Your task to perform on an android device: add a label to a message in the gmail app Image 0: 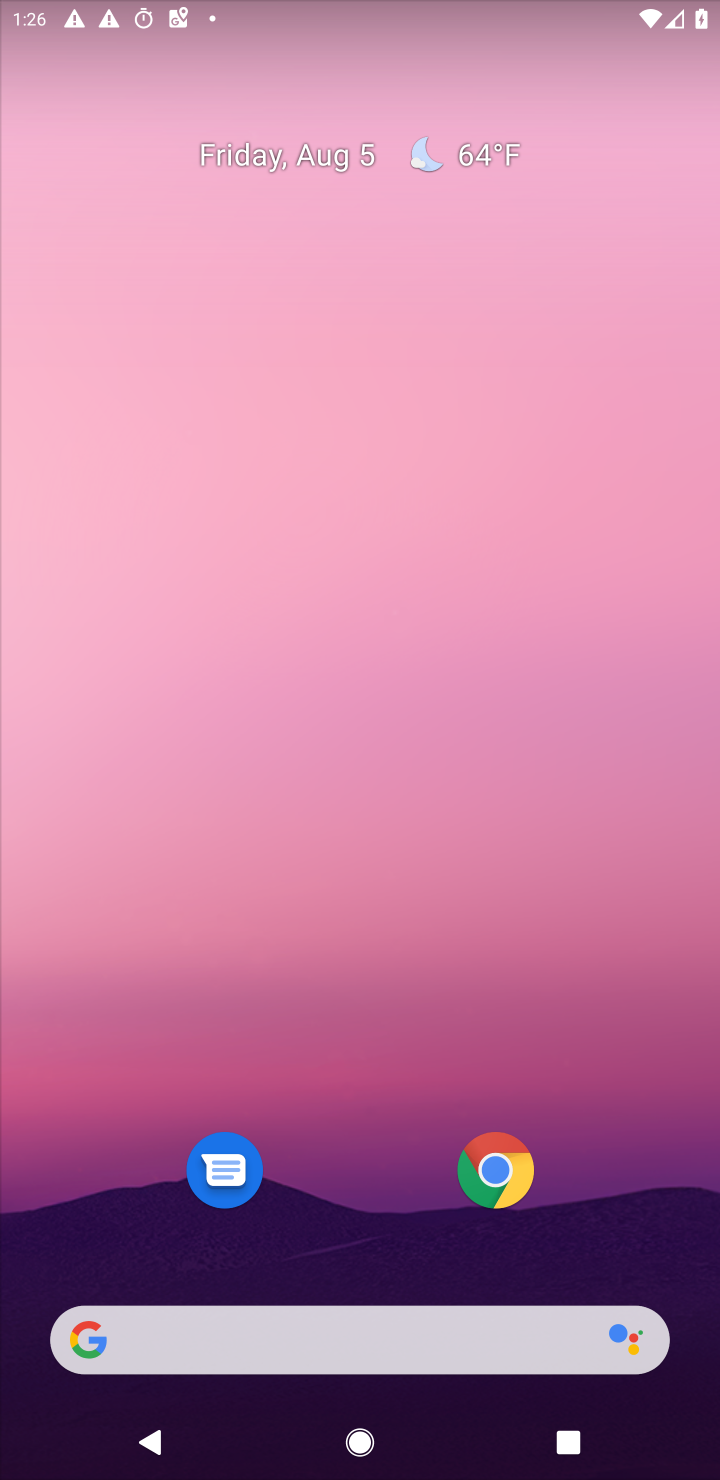
Step 0: drag from (358, 1168) to (404, 215)
Your task to perform on an android device: add a label to a message in the gmail app Image 1: 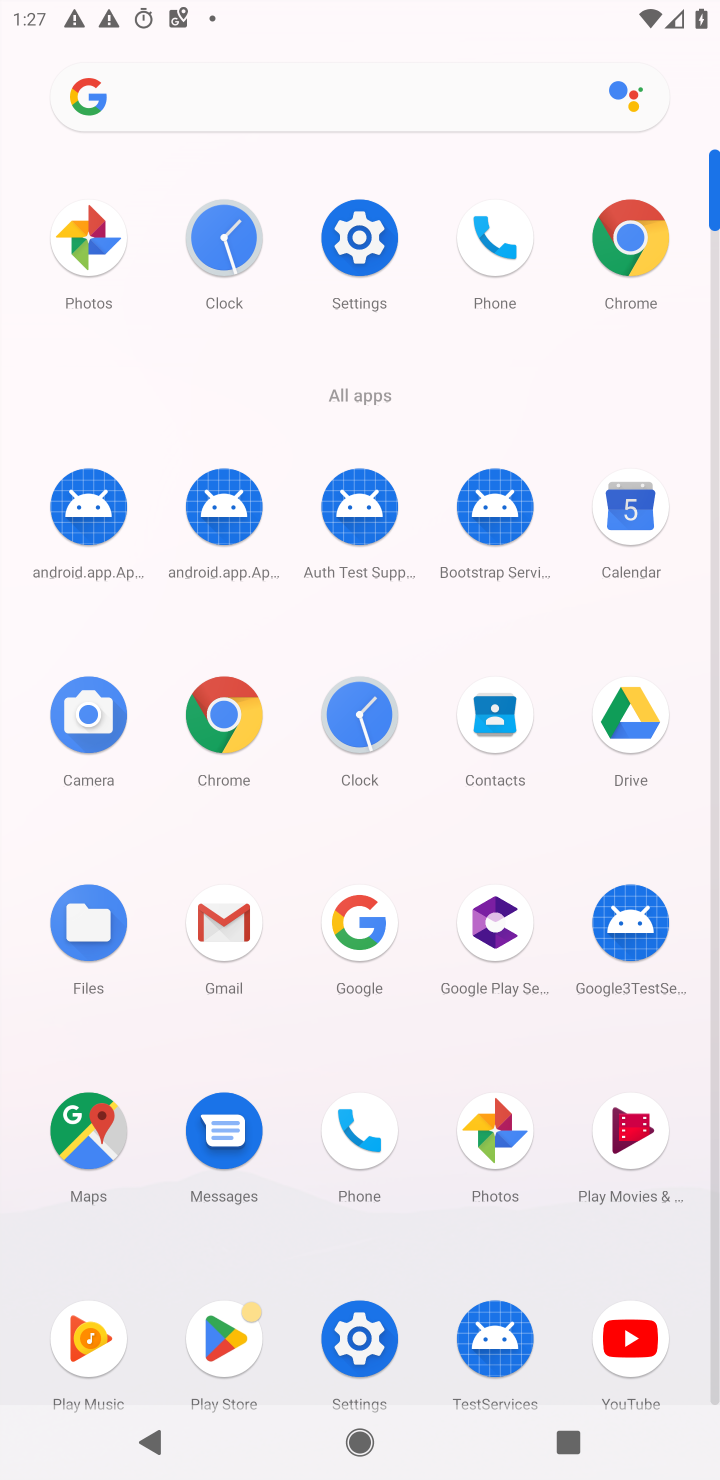
Step 1: click (233, 944)
Your task to perform on an android device: add a label to a message in the gmail app Image 2: 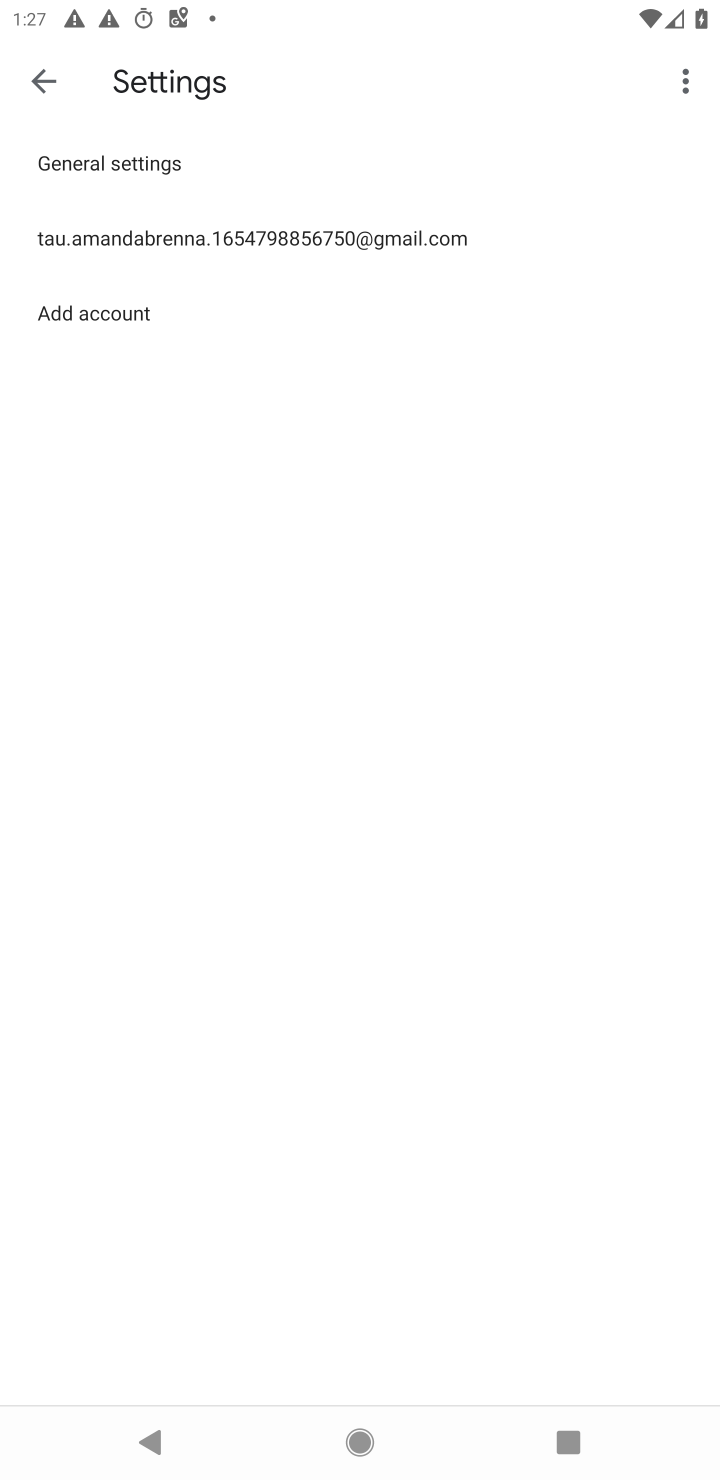
Step 2: press back button
Your task to perform on an android device: add a label to a message in the gmail app Image 3: 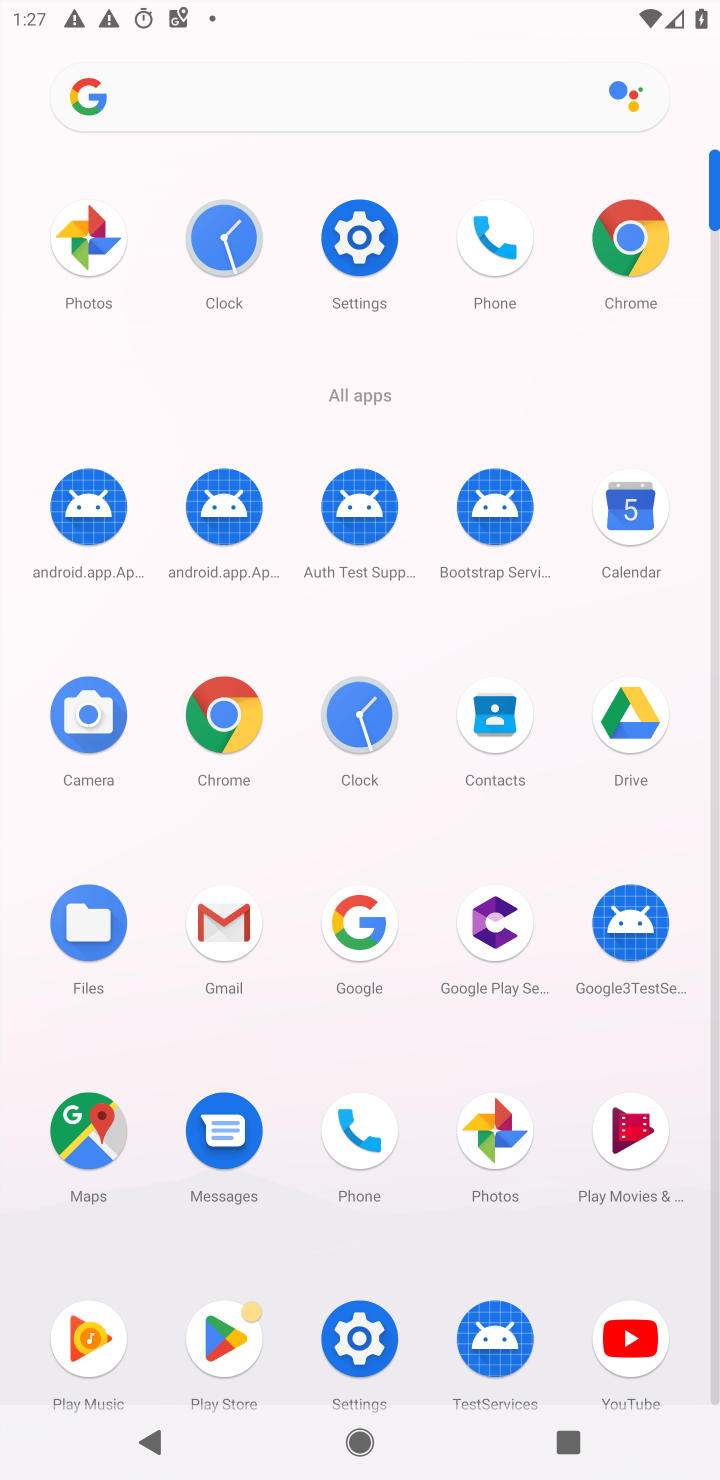
Step 3: click (235, 943)
Your task to perform on an android device: add a label to a message in the gmail app Image 4: 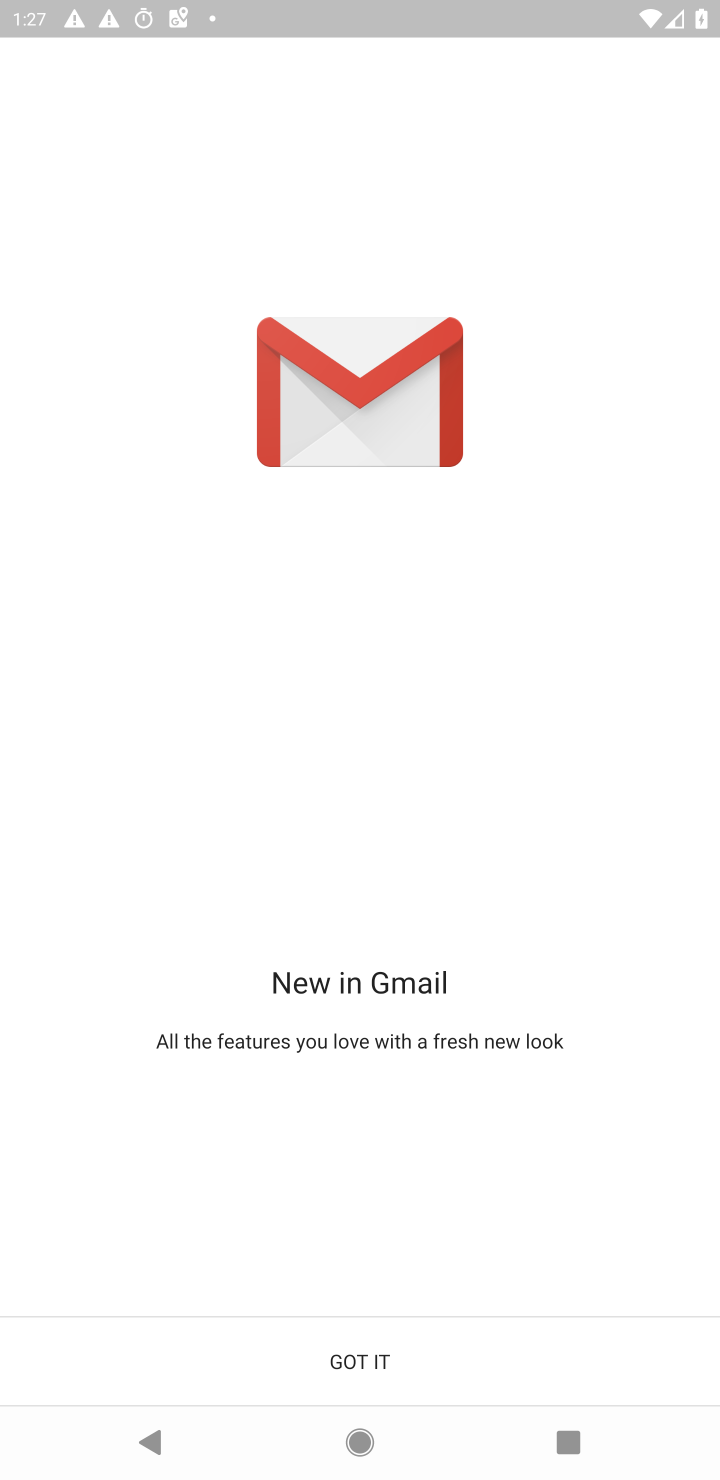
Step 4: click (398, 1349)
Your task to perform on an android device: add a label to a message in the gmail app Image 5: 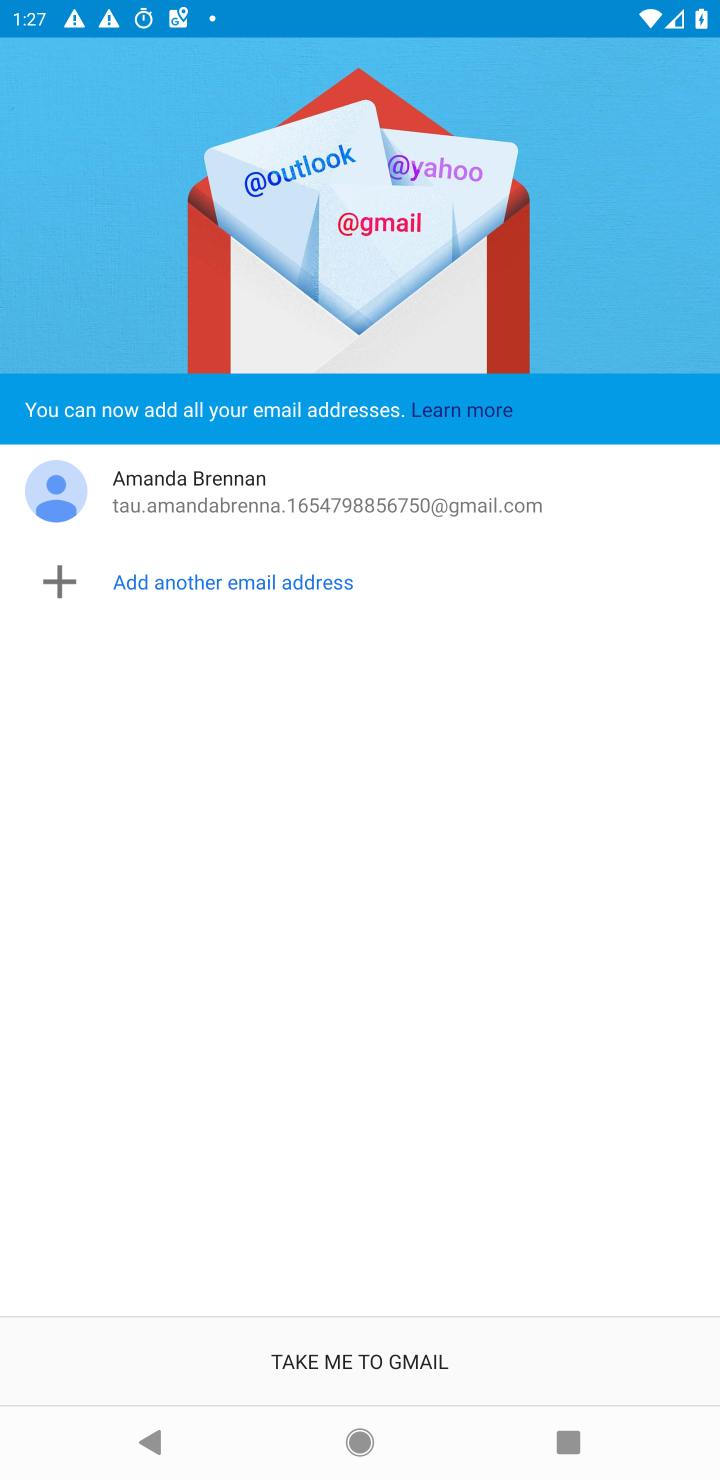
Step 5: click (398, 1349)
Your task to perform on an android device: add a label to a message in the gmail app Image 6: 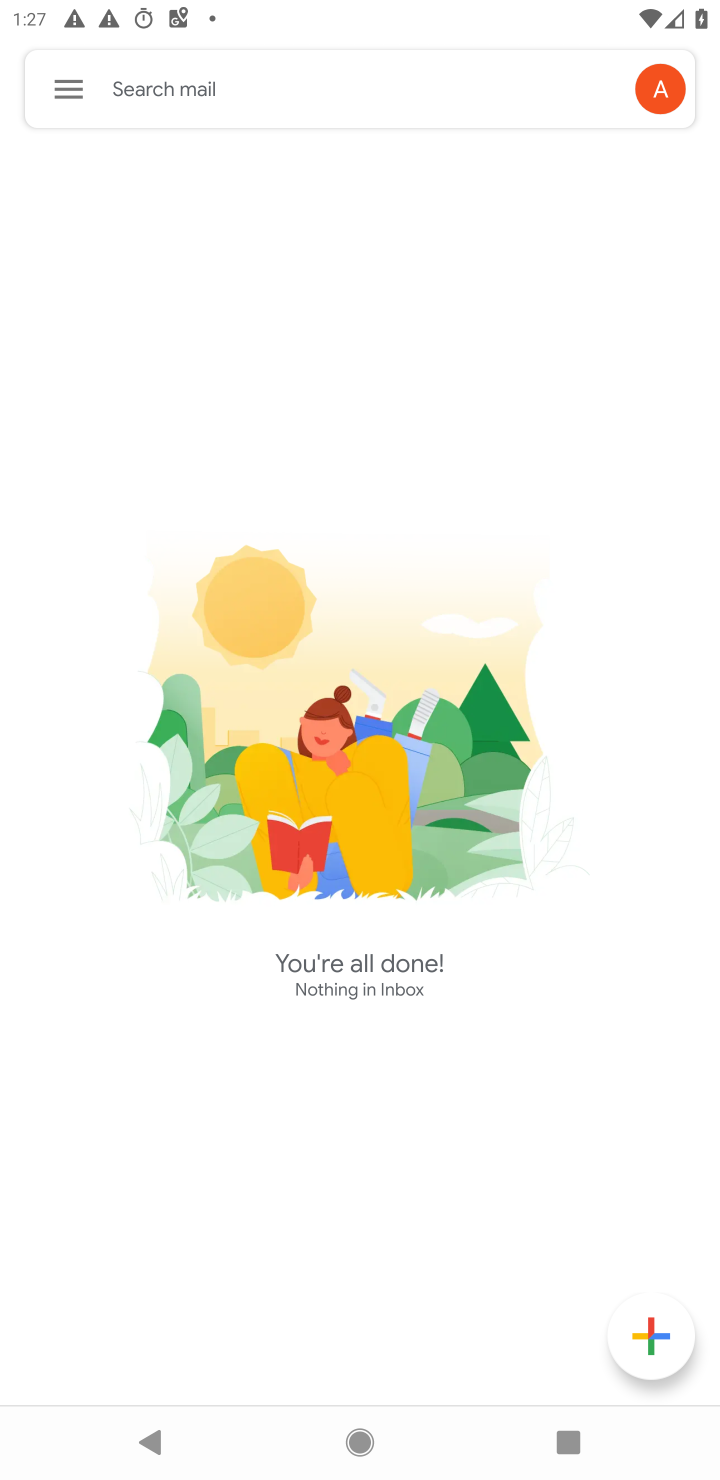
Step 6: click (94, 103)
Your task to perform on an android device: add a label to a message in the gmail app Image 7: 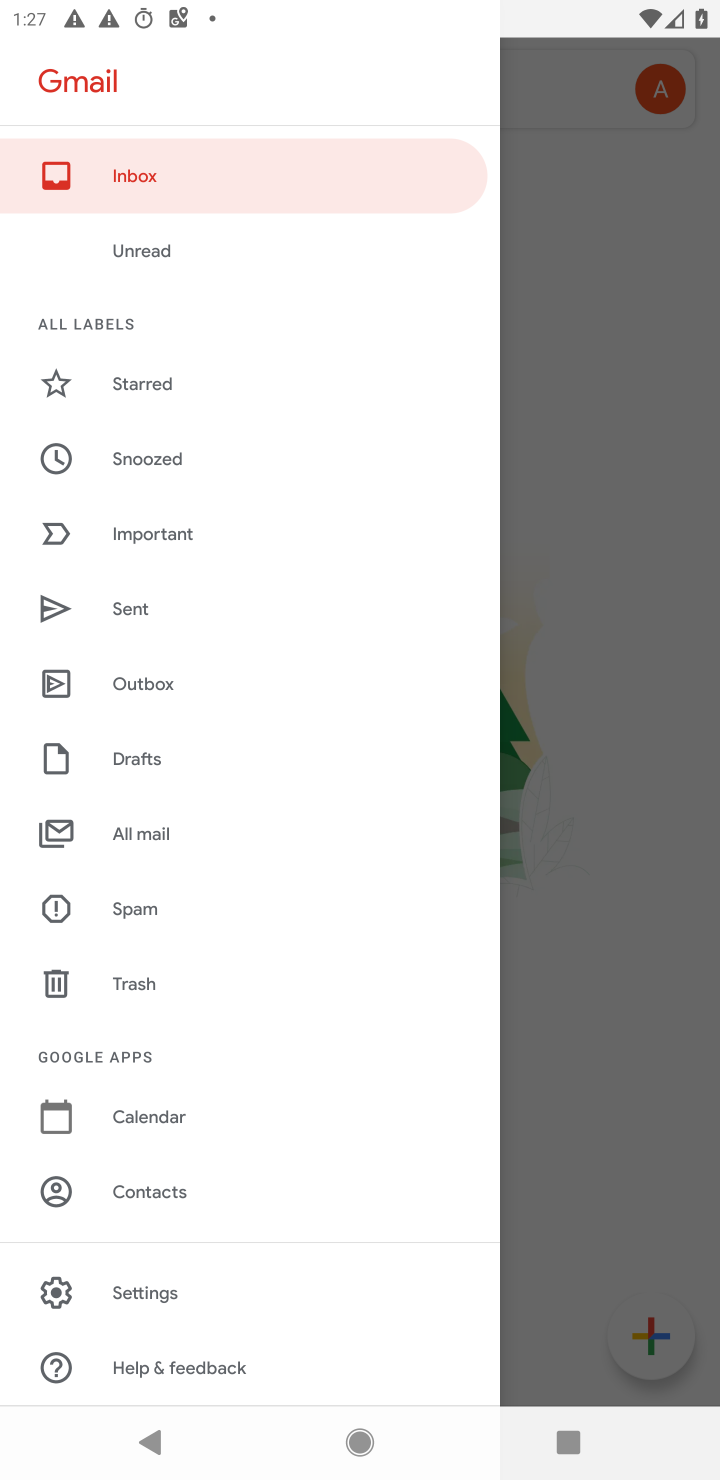
Step 7: click (162, 831)
Your task to perform on an android device: add a label to a message in the gmail app Image 8: 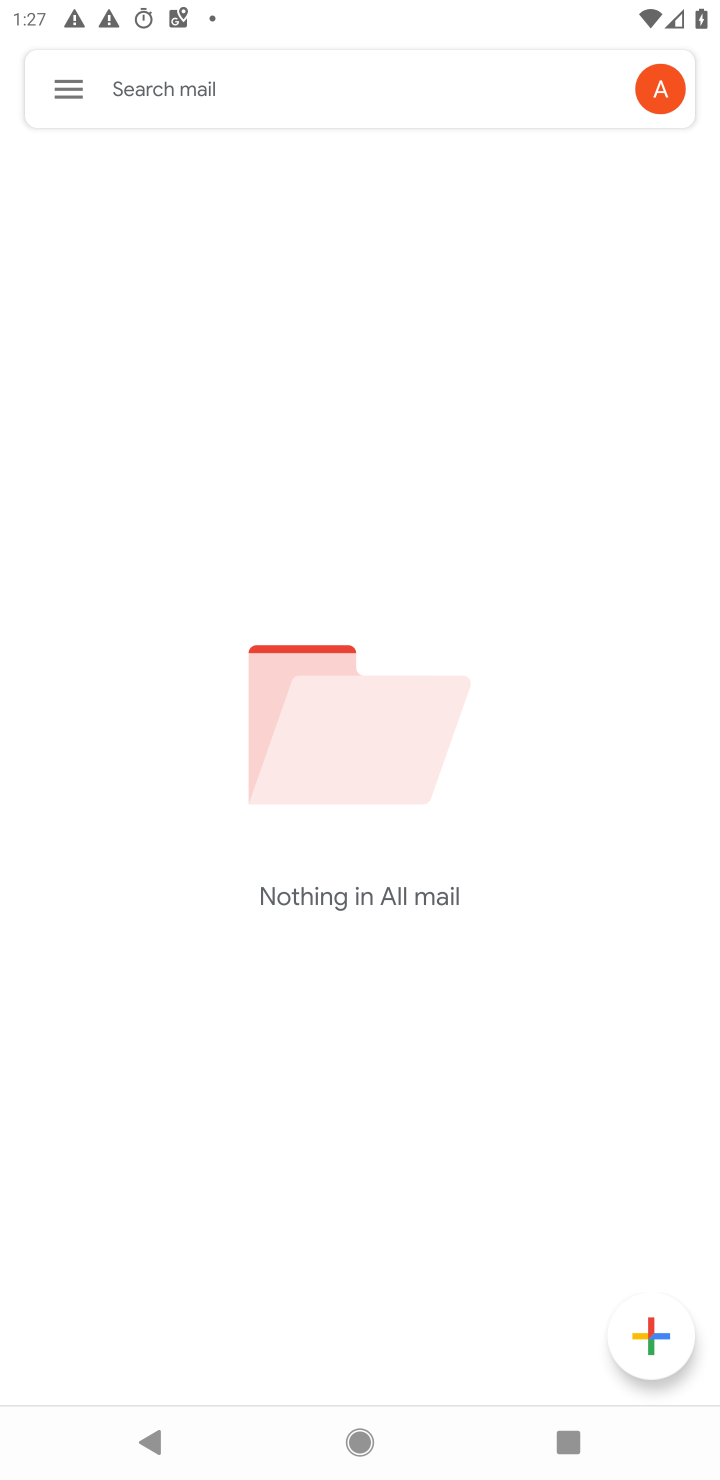
Step 8: task complete